Your task to perform on an android device: Open sound settings Image 0: 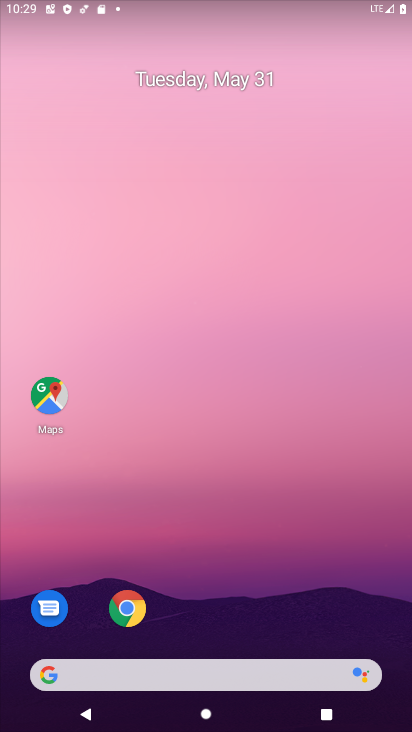
Step 0: drag from (209, 640) to (258, 14)
Your task to perform on an android device: Open sound settings Image 1: 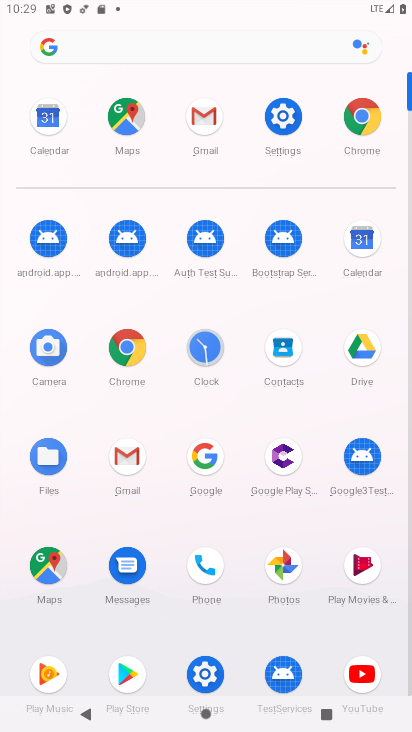
Step 1: click (205, 699)
Your task to perform on an android device: Open sound settings Image 2: 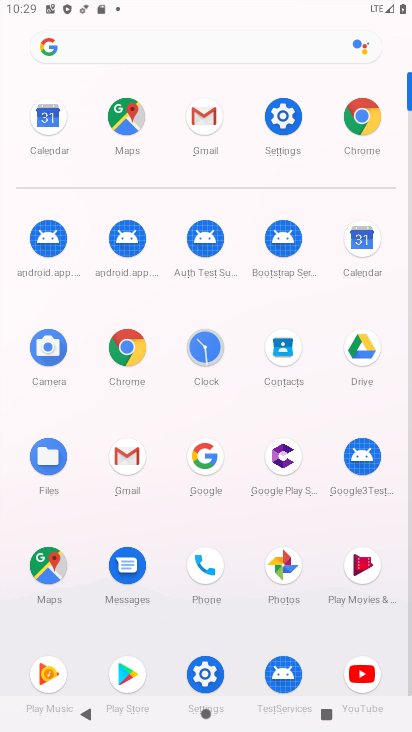
Step 2: click (203, 693)
Your task to perform on an android device: Open sound settings Image 3: 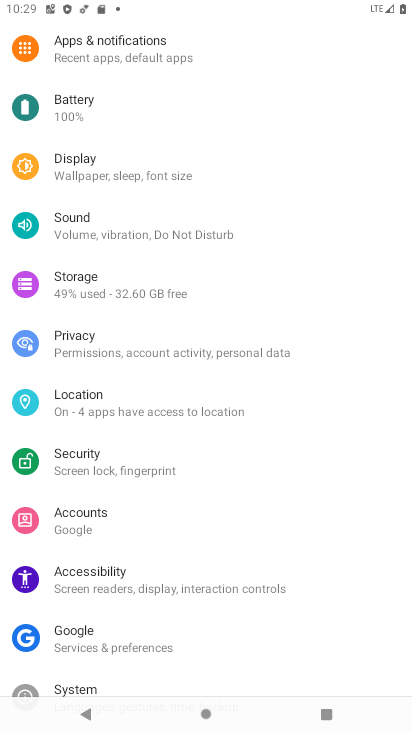
Step 3: click (88, 221)
Your task to perform on an android device: Open sound settings Image 4: 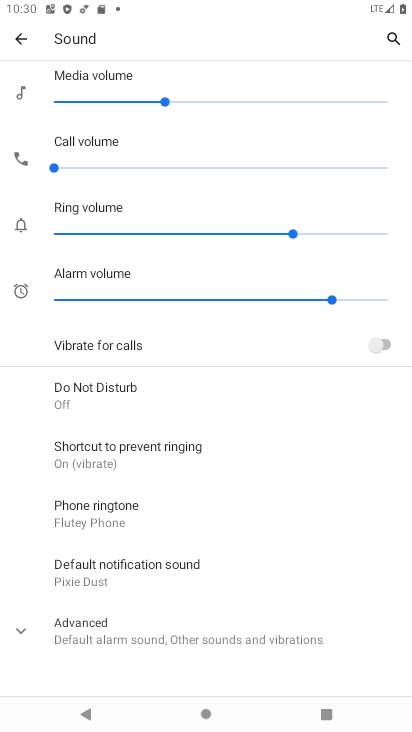
Step 4: task complete